Your task to perform on an android device: Add "panasonic triple a" to the cart on walmart Image 0: 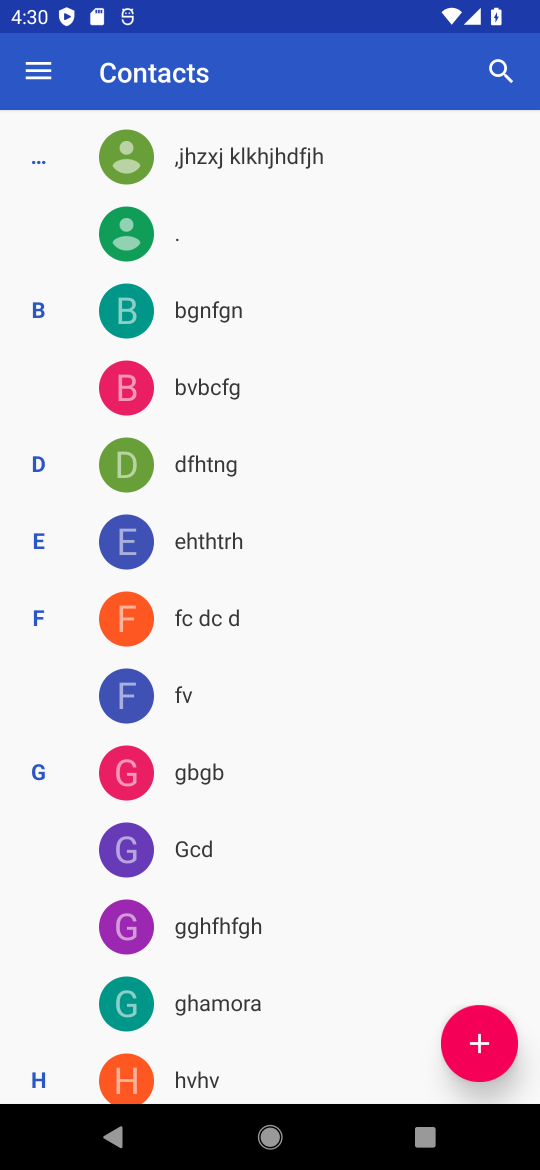
Step 0: press home button
Your task to perform on an android device: Add "panasonic triple a" to the cart on walmart Image 1: 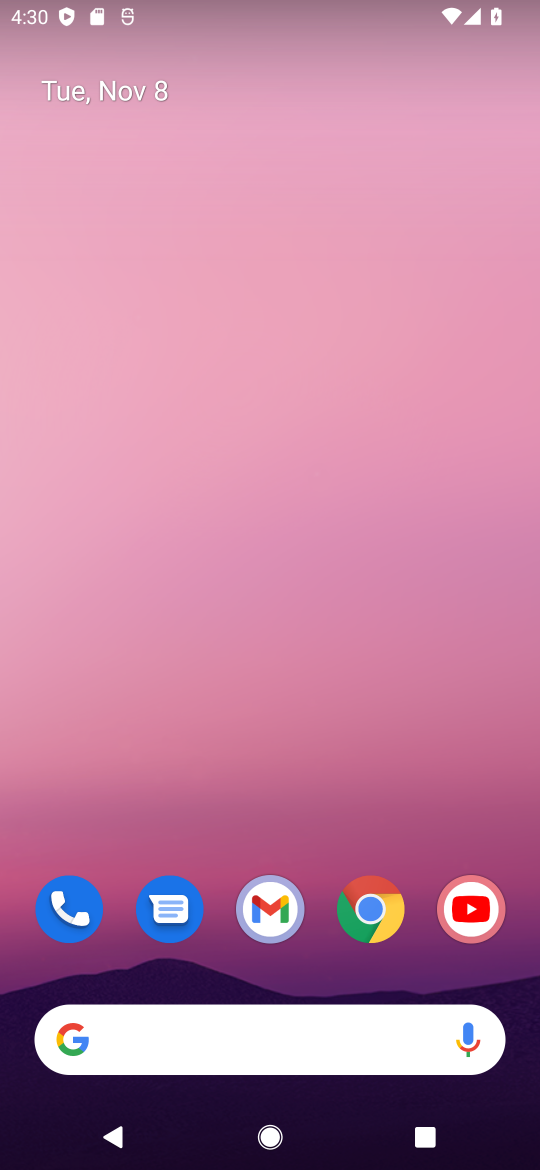
Step 1: click (361, 920)
Your task to perform on an android device: Add "panasonic triple a" to the cart on walmart Image 2: 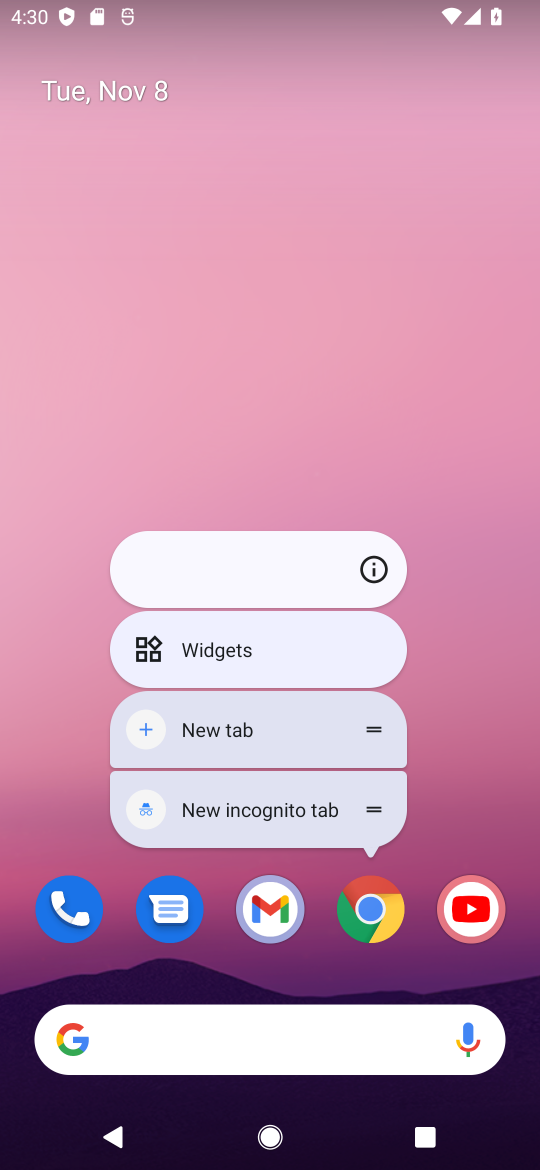
Step 2: click (373, 906)
Your task to perform on an android device: Add "panasonic triple a" to the cart on walmart Image 3: 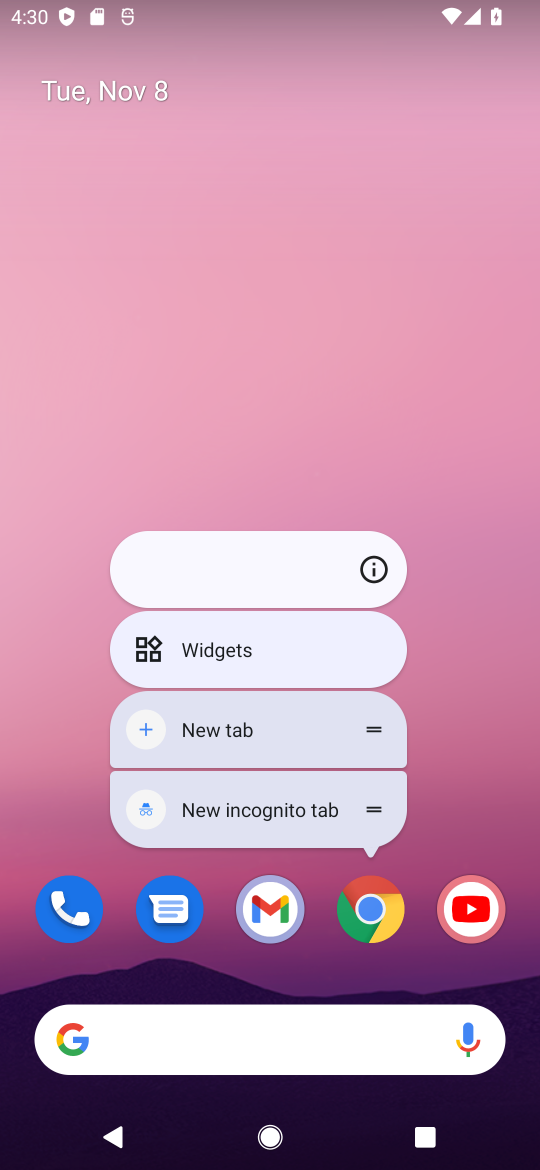
Step 3: click (367, 918)
Your task to perform on an android device: Add "panasonic triple a" to the cart on walmart Image 4: 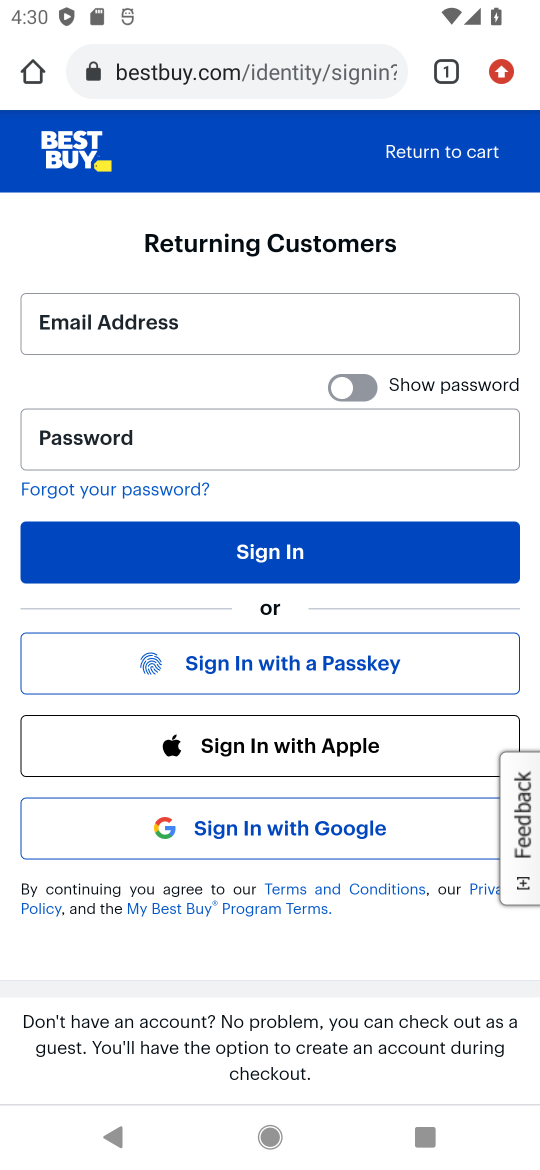
Step 4: click (275, 67)
Your task to perform on an android device: Add "panasonic triple a" to the cart on walmart Image 5: 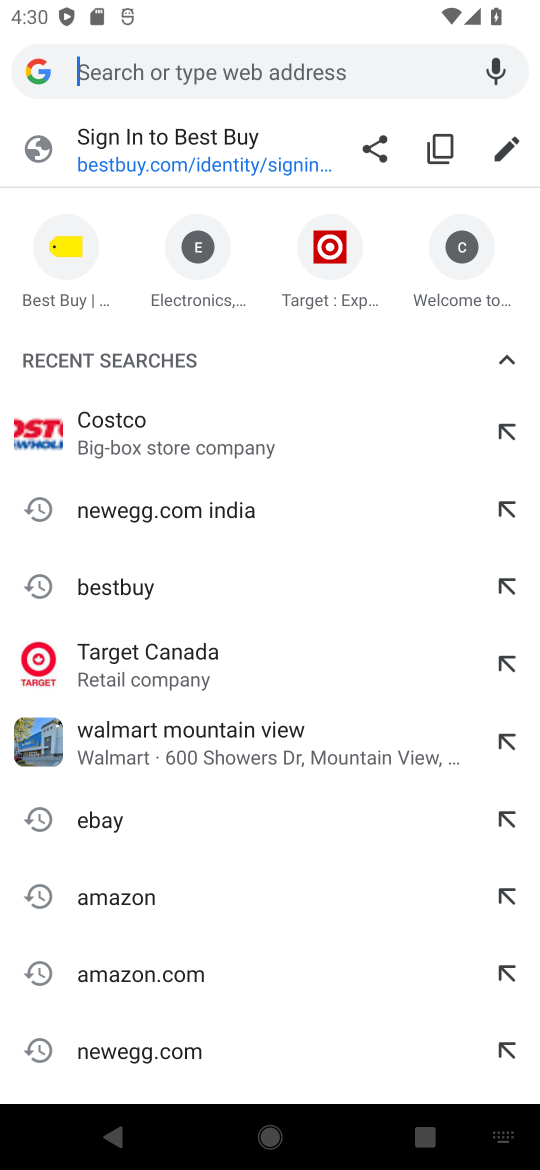
Step 5: type "walmart"
Your task to perform on an android device: Add "panasonic triple a" to the cart on walmart Image 6: 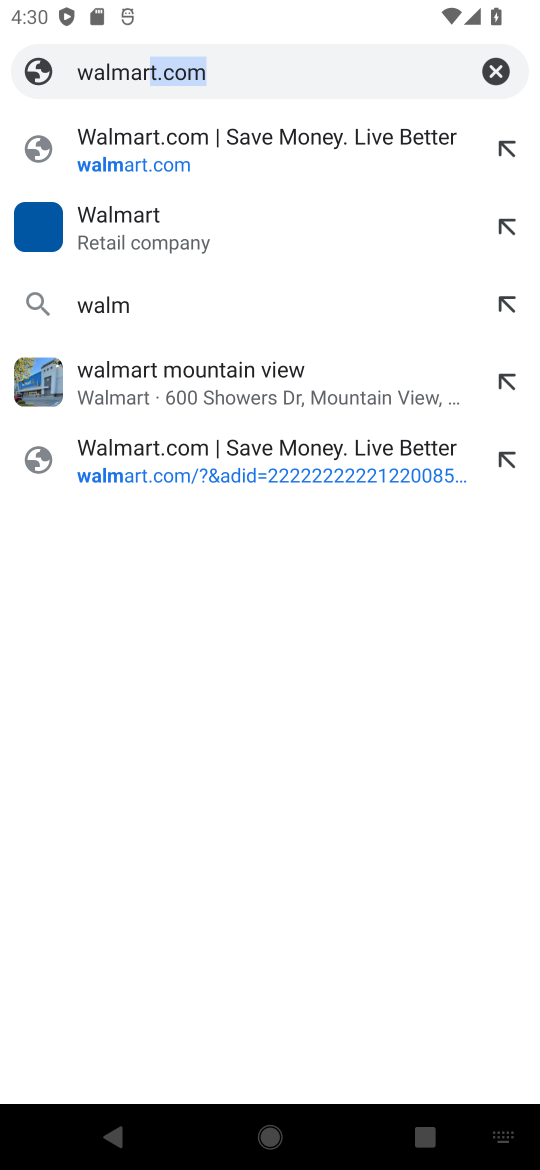
Step 6: press enter
Your task to perform on an android device: Add "panasonic triple a" to the cart on walmart Image 7: 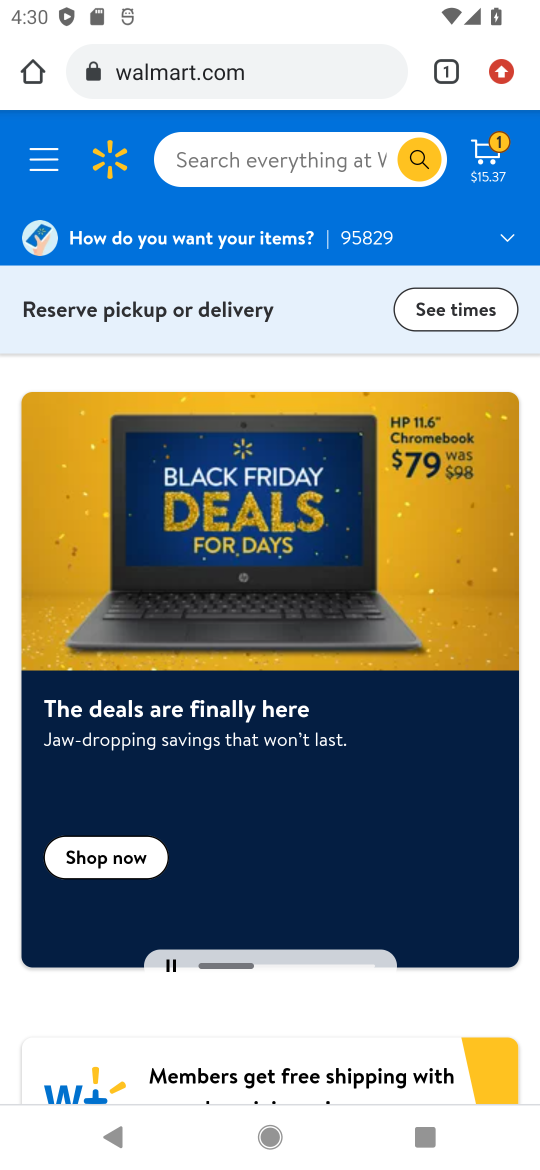
Step 7: click (267, 147)
Your task to perform on an android device: Add "panasonic triple a" to the cart on walmart Image 8: 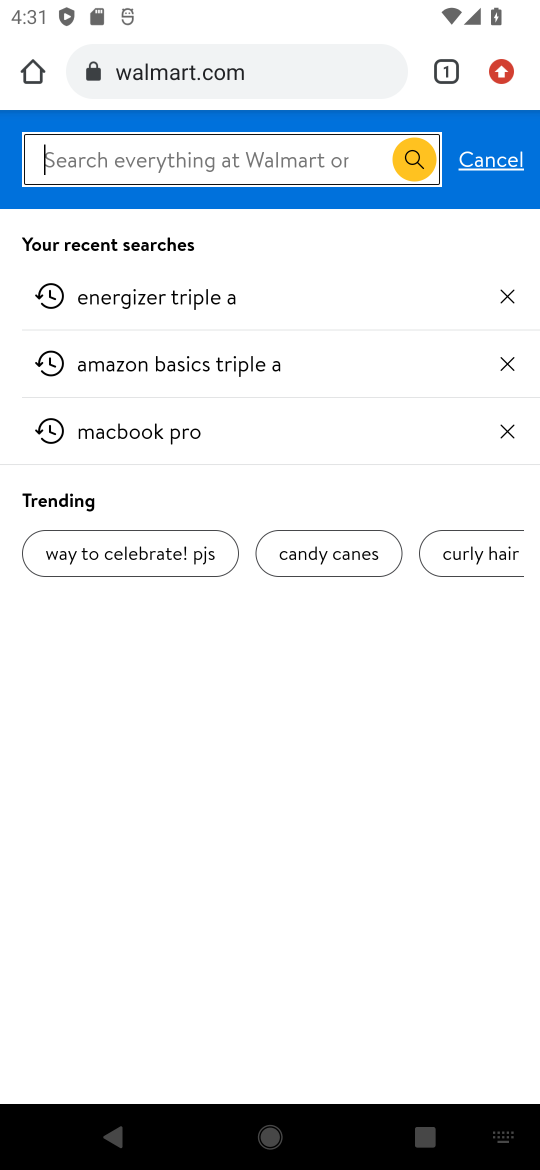
Step 8: type "panasonic triple a"
Your task to perform on an android device: Add "panasonic triple a" to the cart on walmart Image 9: 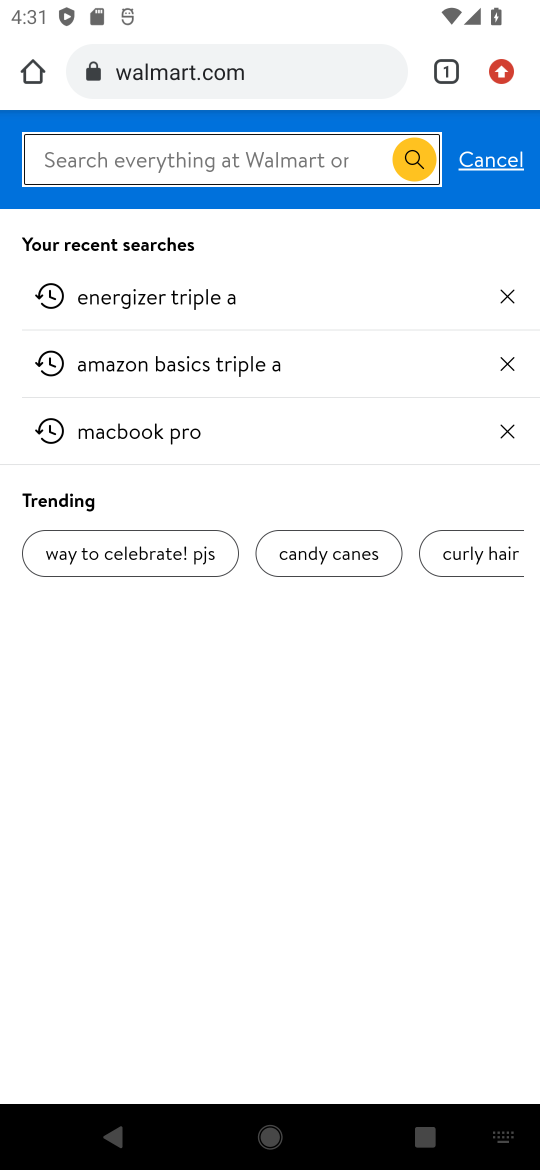
Step 9: press enter
Your task to perform on an android device: Add "panasonic triple a" to the cart on walmart Image 10: 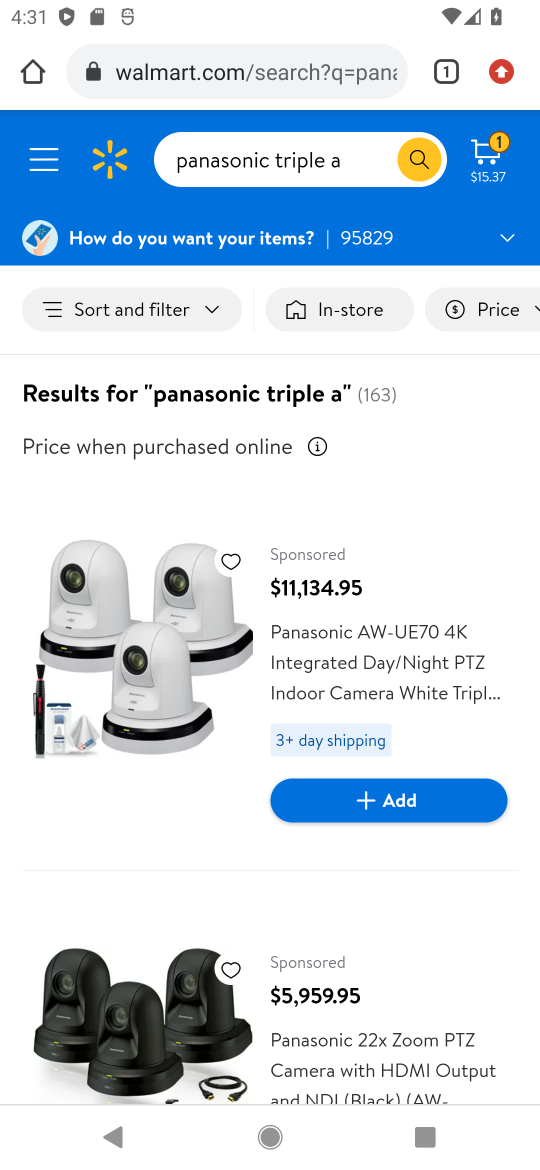
Step 10: task complete